Your task to perform on an android device: Open Youtube and go to the subscriptions tab Image 0: 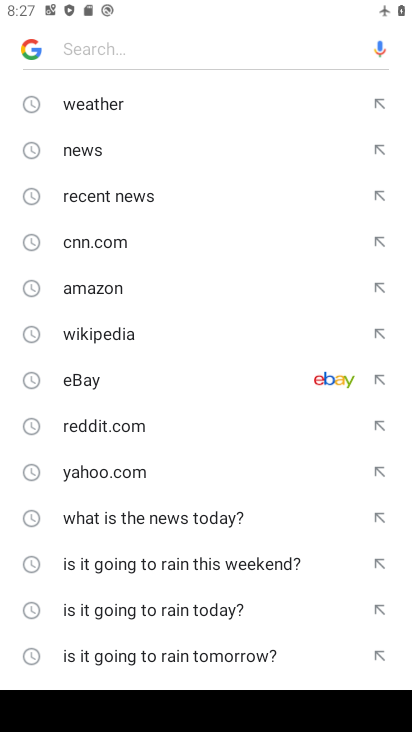
Step 0: press home button
Your task to perform on an android device: Open Youtube and go to the subscriptions tab Image 1: 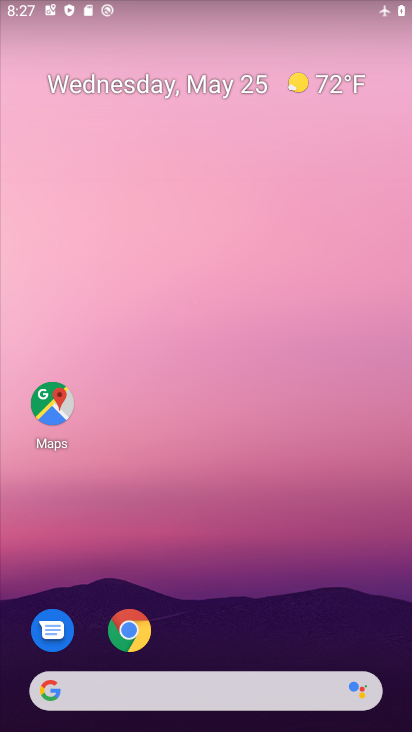
Step 1: drag from (216, 608) to (213, 285)
Your task to perform on an android device: Open Youtube and go to the subscriptions tab Image 2: 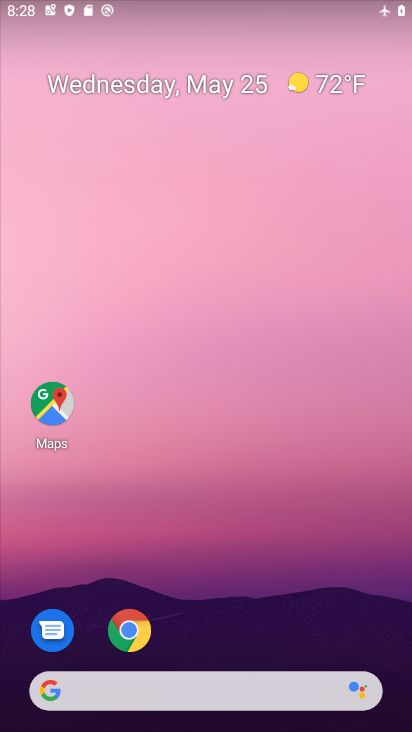
Step 2: drag from (222, 624) to (245, 221)
Your task to perform on an android device: Open Youtube and go to the subscriptions tab Image 3: 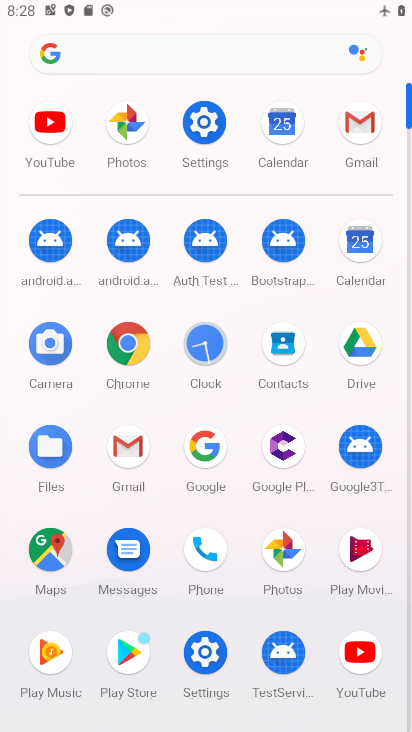
Step 3: click (363, 653)
Your task to perform on an android device: Open Youtube and go to the subscriptions tab Image 4: 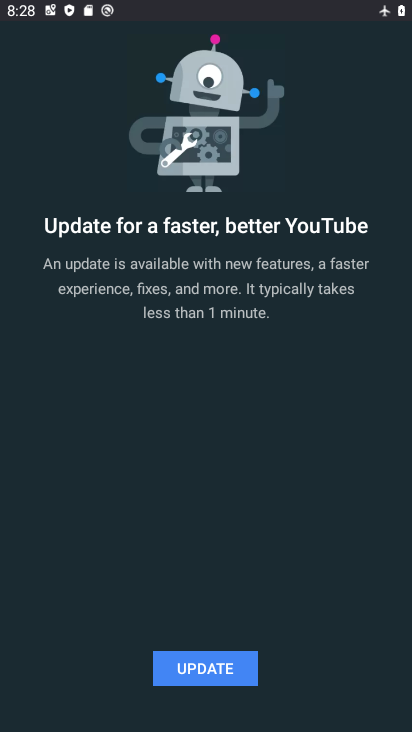
Step 4: click (229, 687)
Your task to perform on an android device: Open Youtube and go to the subscriptions tab Image 5: 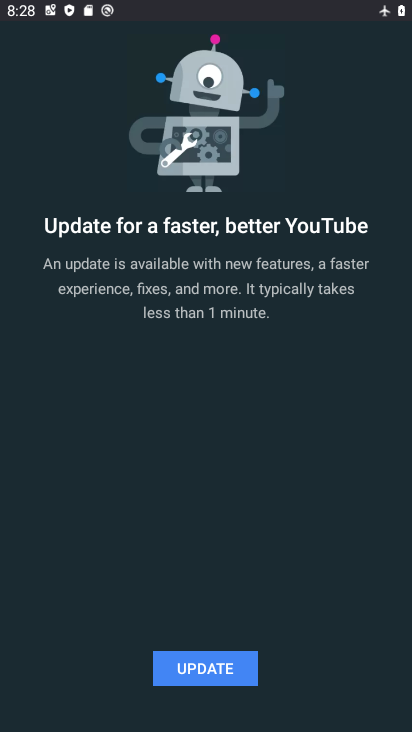
Step 5: click (180, 655)
Your task to perform on an android device: Open Youtube and go to the subscriptions tab Image 6: 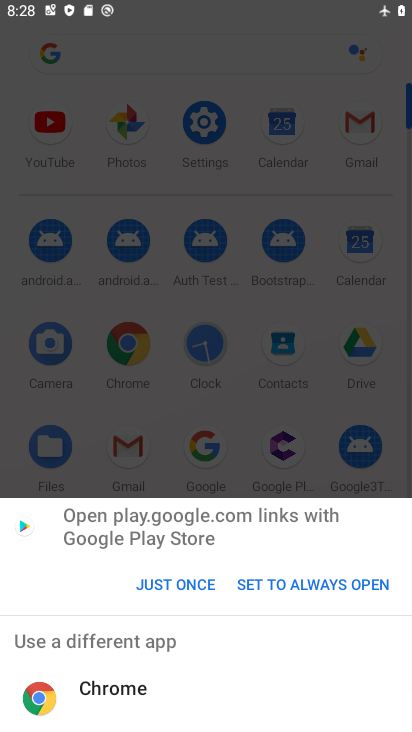
Step 6: click (178, 577)
Your task to perform on an android device: Open Youtube and go to the subscriptions tab Image 7: 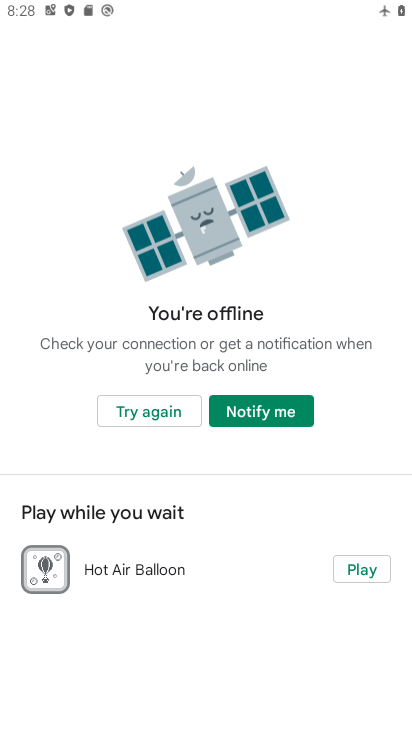
Step 7: task complete